Your task to perform on an android device: toggle improve location accuracy Image 0: 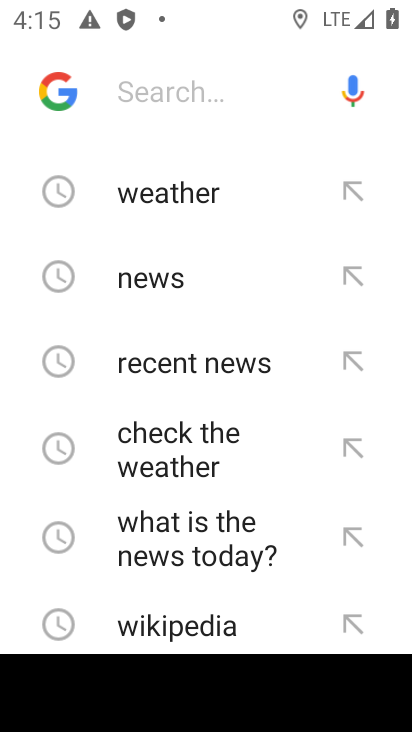
Step 0: press home button
Your task to perform on an android device: toggle improve location accuracy Image 1: 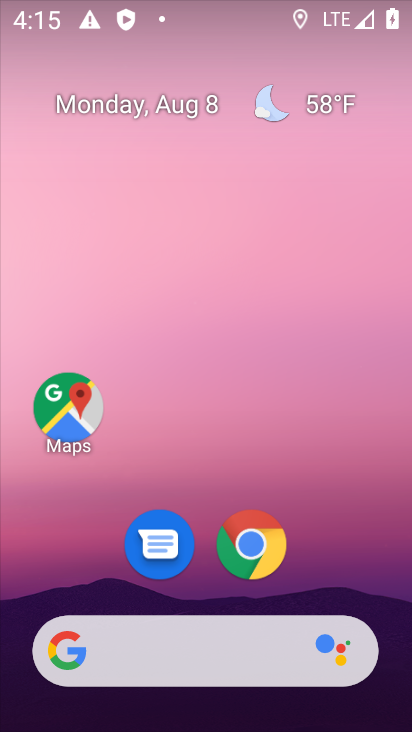
Step 1: drag from (237, 576) to (314, 47)
Your task to perform on an android device: toggle improve location accuracy Image 2: 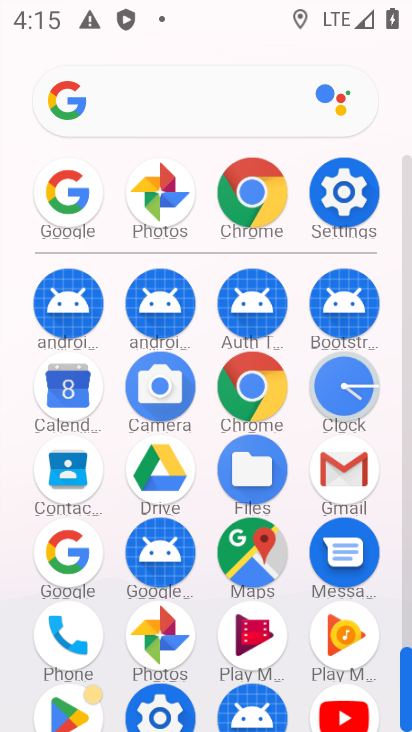
Step 2: click (356, 208)
Your task to perform on an android device: toggle improve location accuracy Image 3: 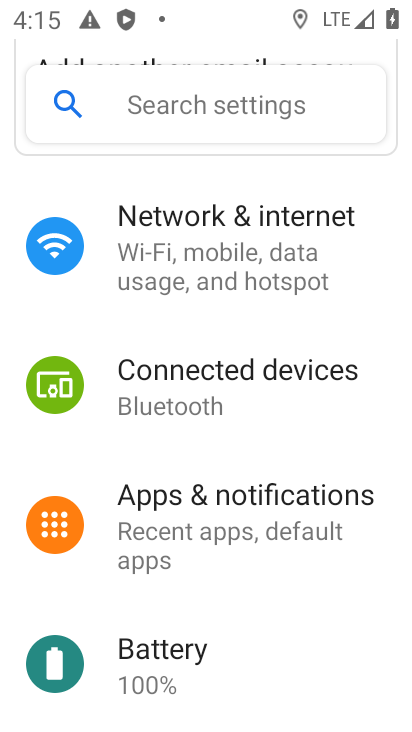
Step 3: drag from (213, 576) to (264, 107)
Your task to perform on an android device: toggle improve location accuracy Image 4: 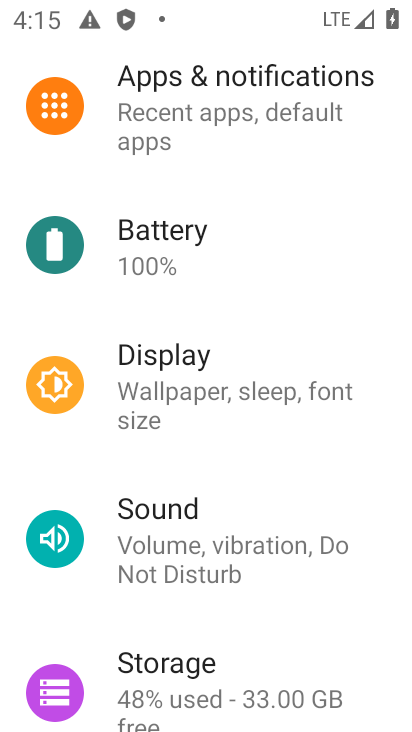
Step 4: drag from (174, 588) to (201, 164)
Your task to perform on an android device: toggle improve location accuracy Image 5: 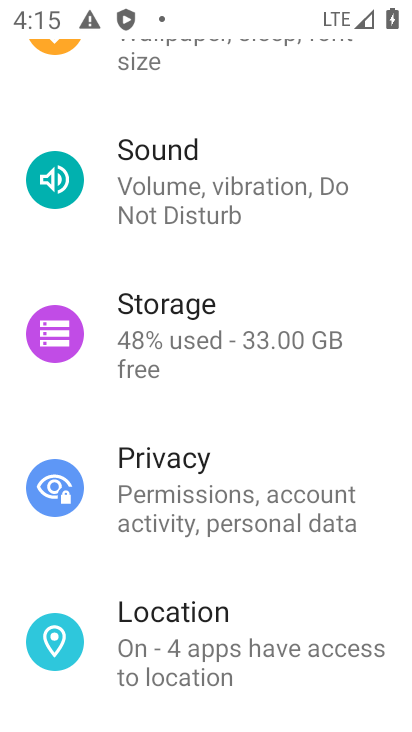
Step 5: click (177, 638)
Your task to perform on an android device: toggle improve location accuracy Image 6: 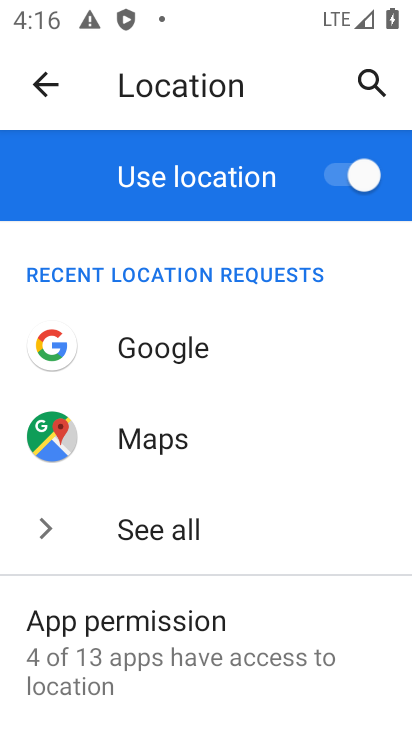
Step 6: drag from (189, 647) to (238, 300)
Your task to perform on an android device: toggle improve location accuracy Image 7: 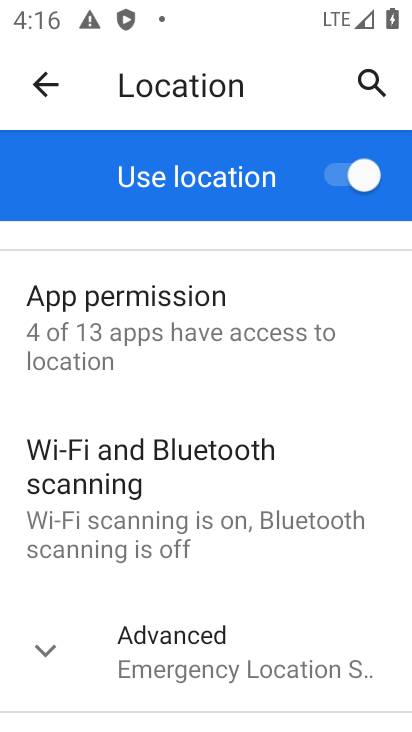
Step 7: click (205, 641)
Your task to perform on an android device: toggle improve location accuracy Image 8: 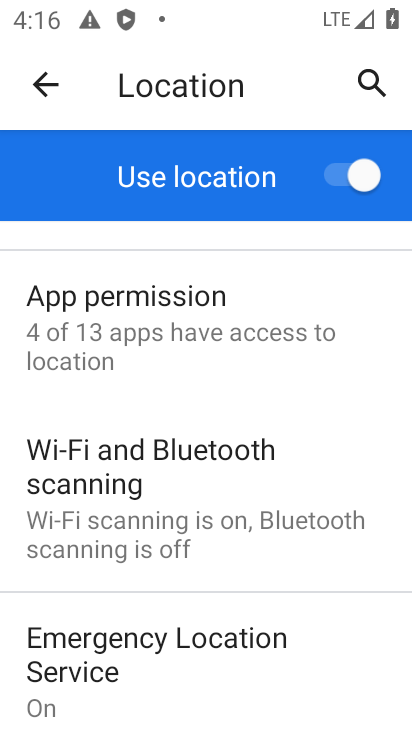
Step 8: drag from (239, 645) to (297, 197)
Your task to perform on an android device: toggle improve location accuracy Image 9: 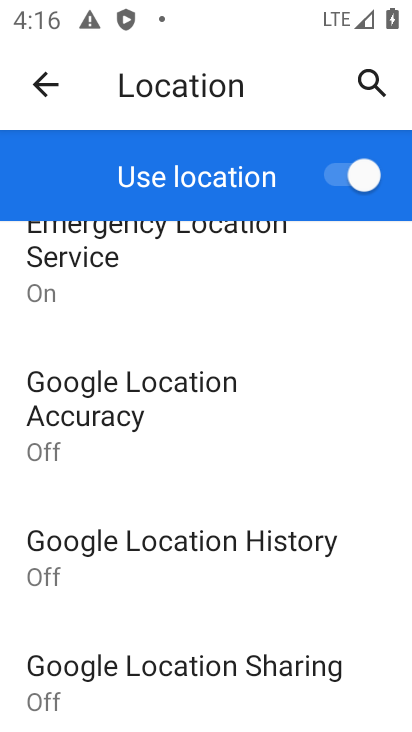
Step 9: click (161, 418)
Your task to perform on an android device: toggle improve location accuracy Image 10: 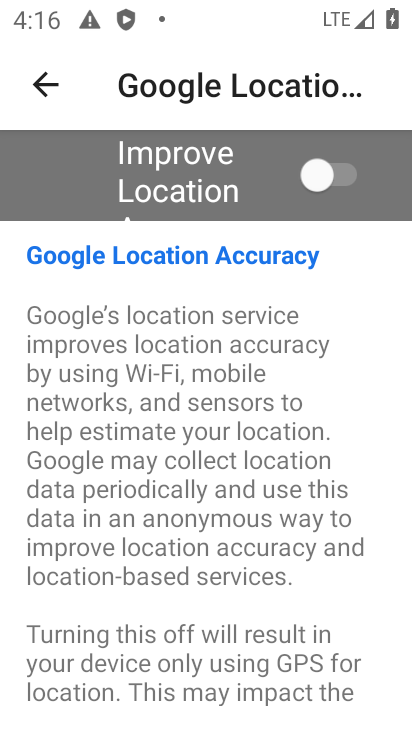
Step 10: click (330, 174)
Your task to perform on an android device: toggle improve location accuracy Image 11: 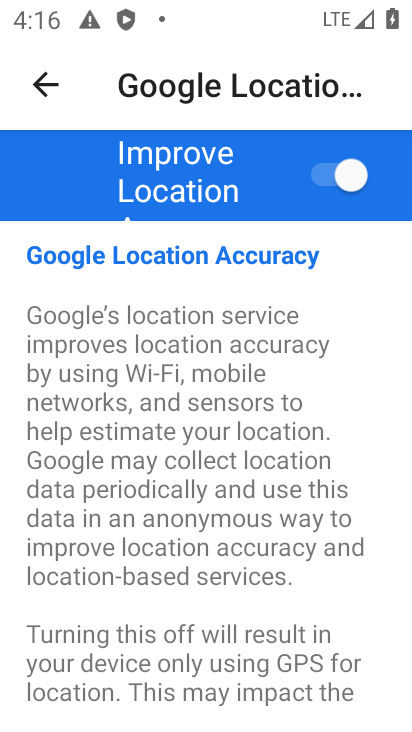
Step 11: task complete